Your task to perform on an android device: toggle sleep mode Image 0: 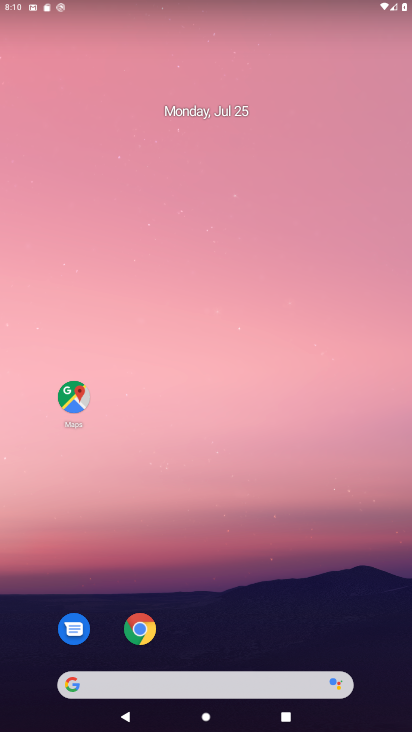
Step 0: drag from (190, 687) to (172, 91)
Your task to perform on an android device: toggle sleep mode Image 1: 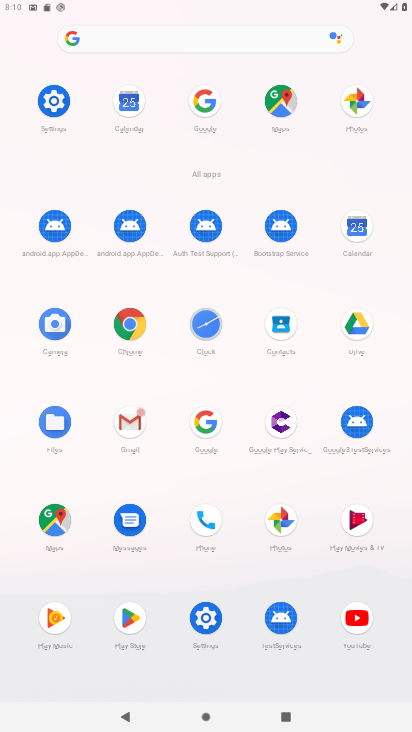
Step 1: click (54, 101)
Your task to perform on an android device: toggle sleep mode Image 2: 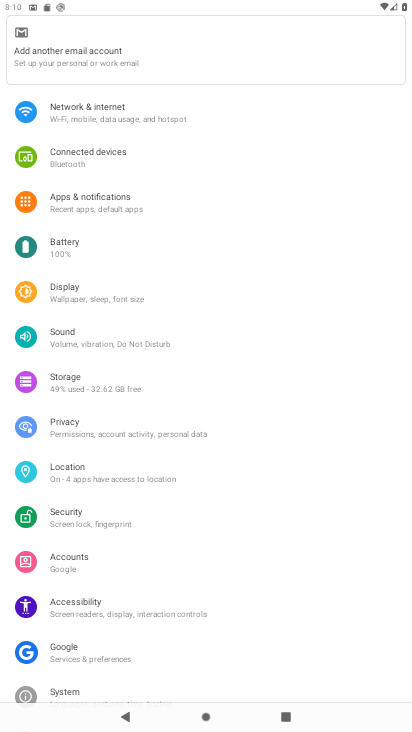
Step 2: click (66, 296)
Your task to perform on an android device: toggle sleep mode Image 3: 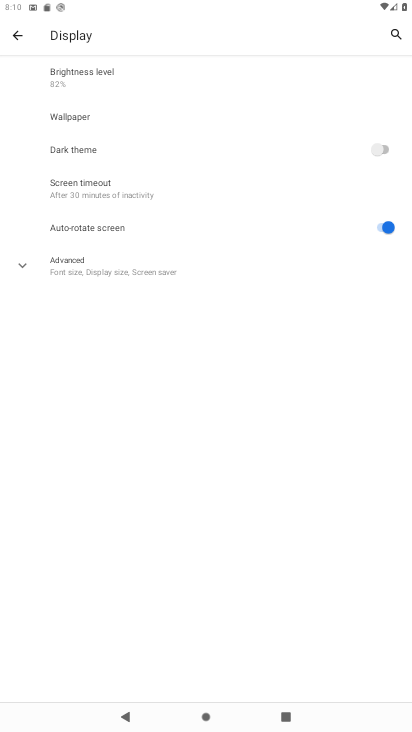
Step 3: click (91, 200)
Your task to perform on an android device: toggle sleep mode Image 4: 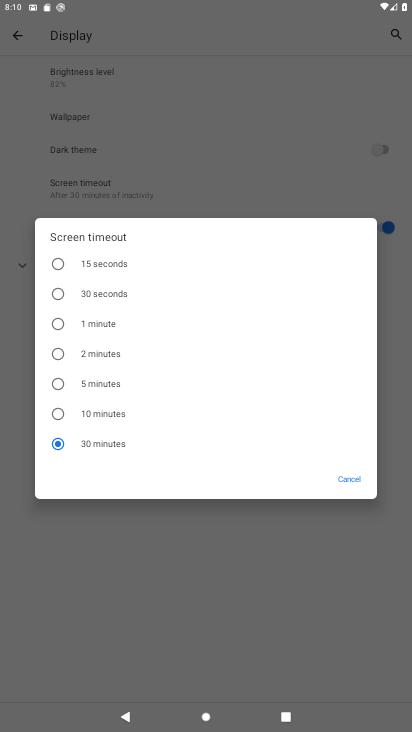
Step 4: click (352, 476)
Your task to perform on an android device: toggle sleep mode Image 5: 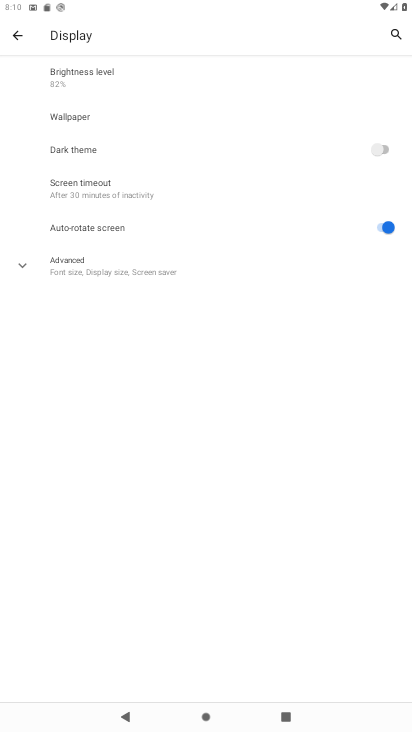
Step 5: click (100, 199)
Your task to perform on an android device: toggle sleep mode Image 6: 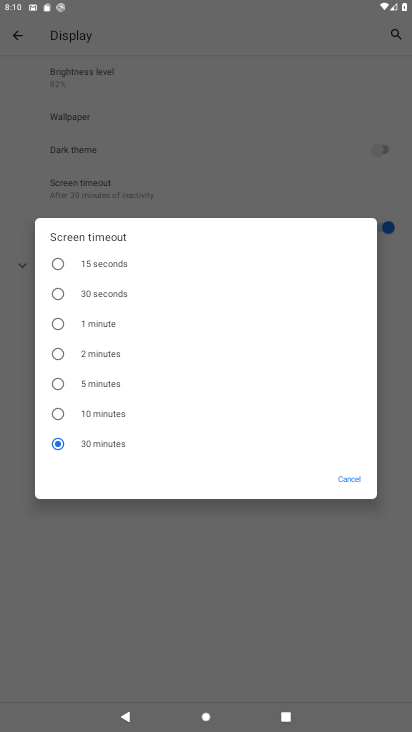
Step 6: click (350, 479)
Your task to perform on an android device: toggle sleep mode Image 7: 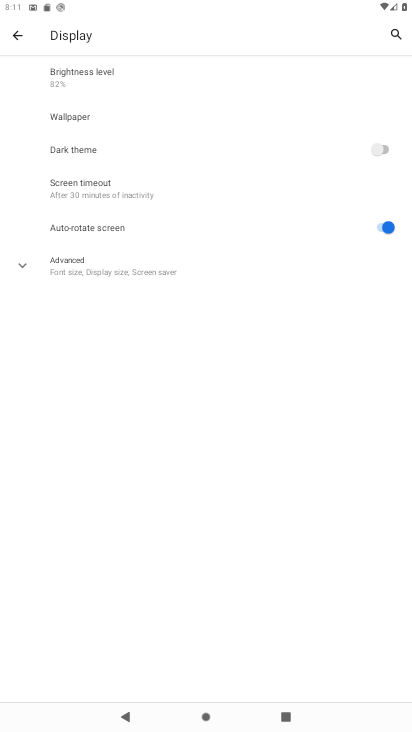
Step 7: click (97, 269)
Your task to perform on an android device: toggle sleep mode Image 8: 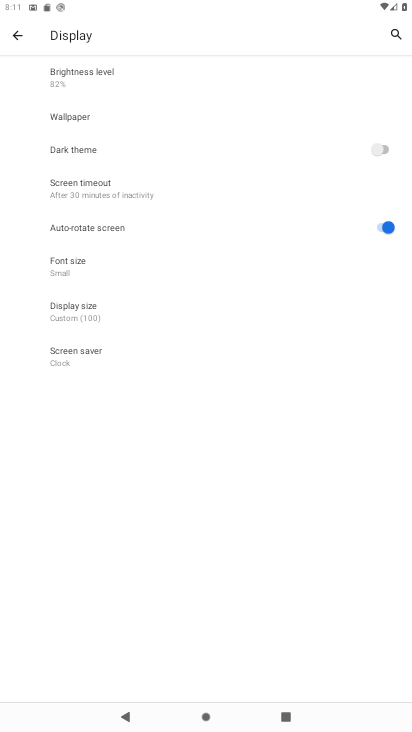
Step 8: click (87, 359)
Your task to perform on an android device: toggle sleep mode Image 9: 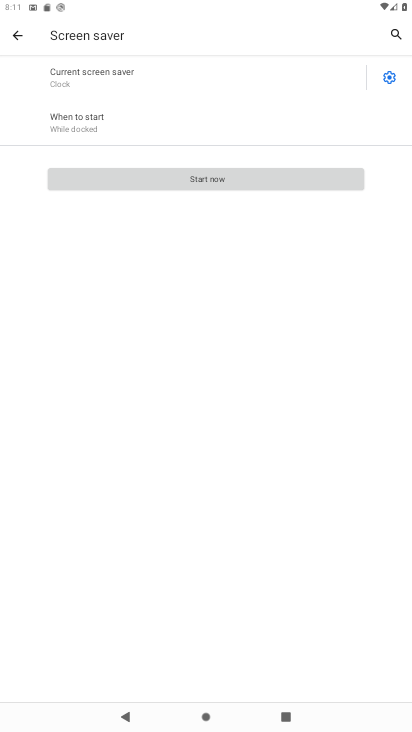
Step 9: click (388, 77)
Your task to perform on an android device: toggle sleep mode Image 10: 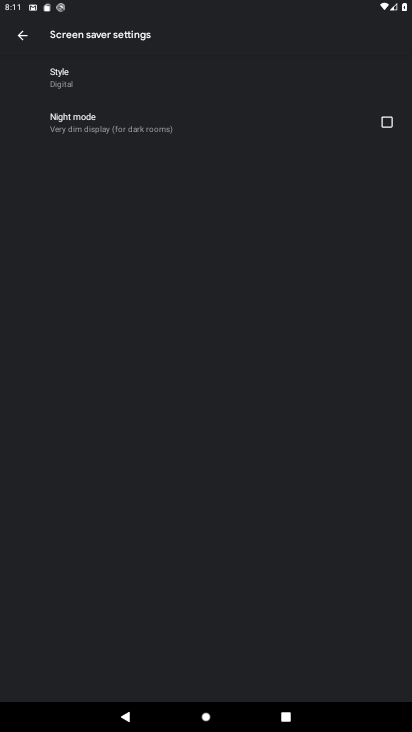
Step 10: task complete